Your task to perform on an android device: delete browsing data in the chrome app Image 0: 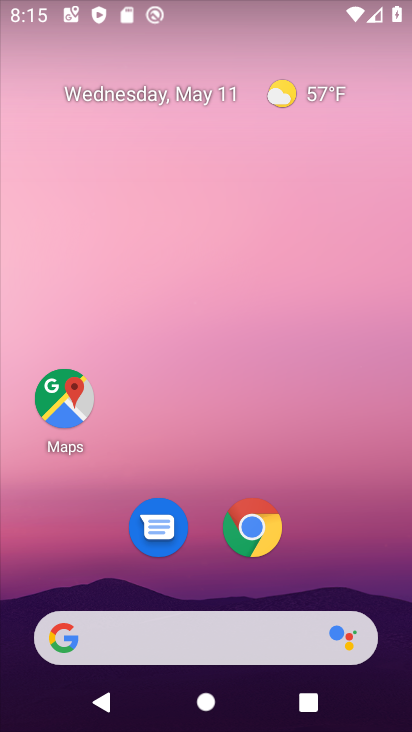
Step 0: click (250, 521)
Your task to perform on an android device: delete browsing data in the chrome app Image 1: 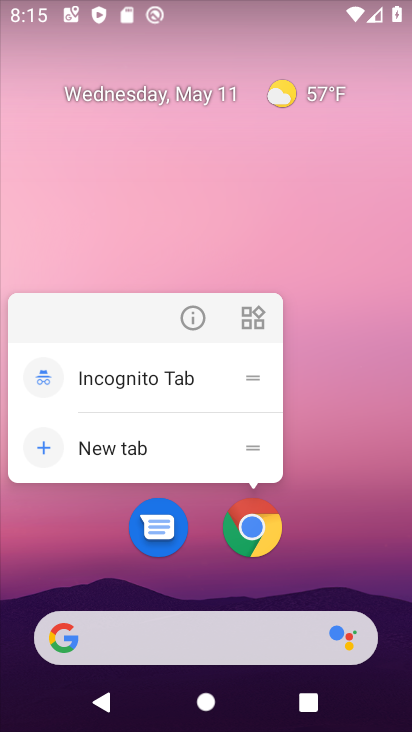
Step 1: click (248, 544)
Your task to perform on an android device: delete browsing data in the chrome app Image 2: 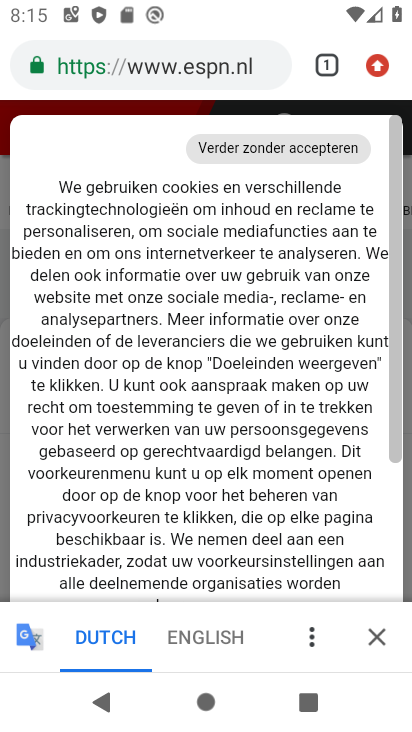
Step 2: drag from (284, 86) to (295, 231)
Your task to perform on an android device: delete browsing data in the chrome app Image 3: 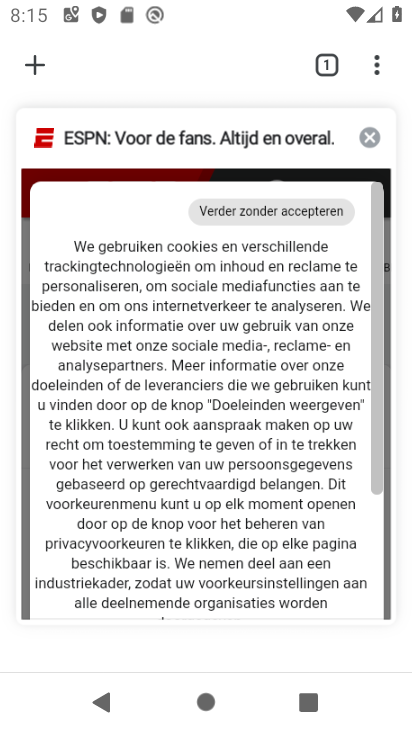
Step 3: click (375, 67)
Your task to perform on an android device: delete browsing data in the chrome app Image 4: 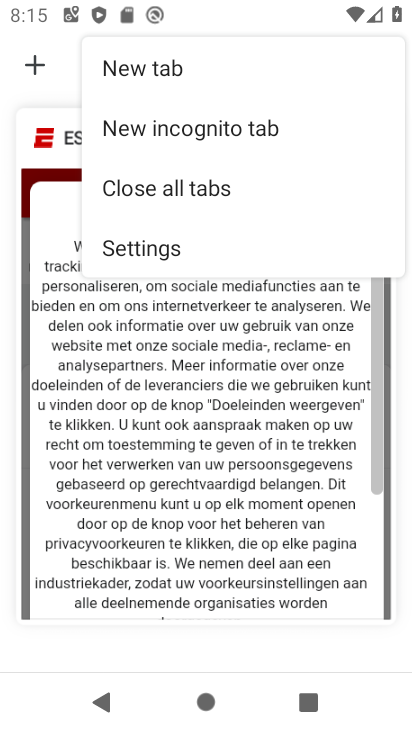
Step 4: click (149, 253)
Your task to perform on an android device: delete browsing data in the chrome app Image 5: 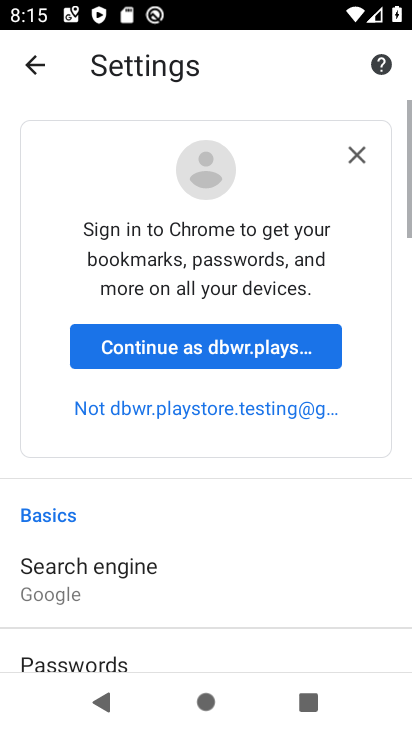
Step 5: drag from (169, 545) to (166, 66)
Your task to perform on an android device: delete browsing data in the chrome app Image 6: 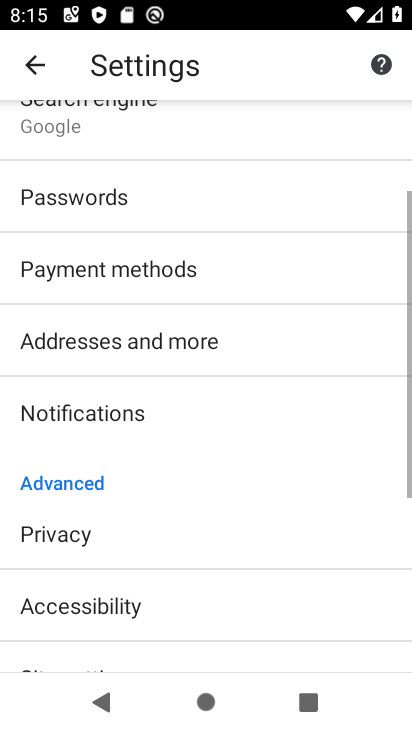
Step 6: drag from (153, 514) to (143, 90)
Your task to perform on an android device: delete browsing data in the chrome app Image 7: 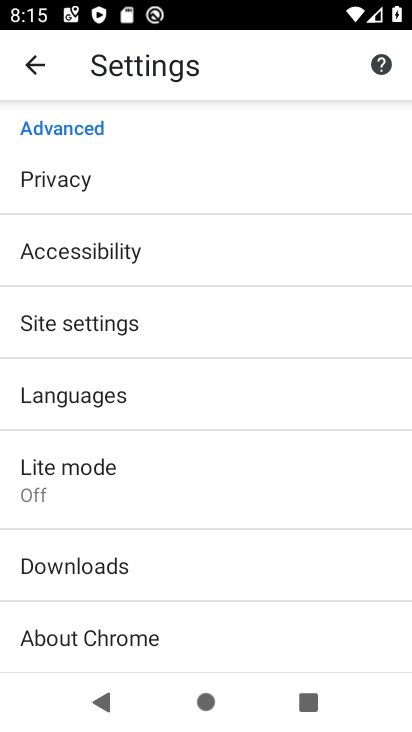
Step 7: click (66, 189)
Your task to perform on an android device: delete browsing data in the chrome app Image 8: 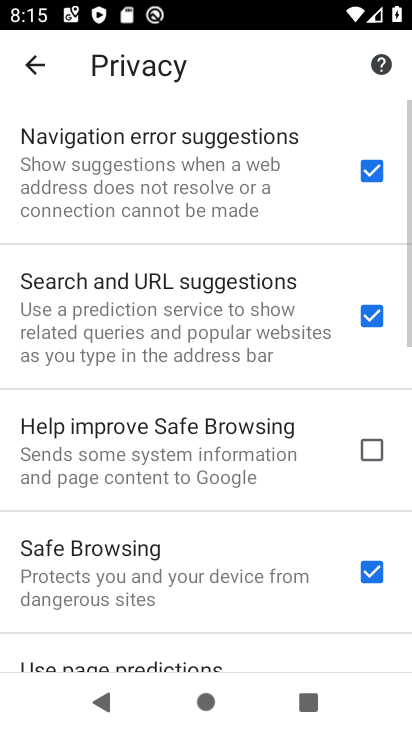
Step 8: drag from (187, 494) to (182, 98)
Your task to perform on an android device: delete browsing data in the chrome app Image 9: 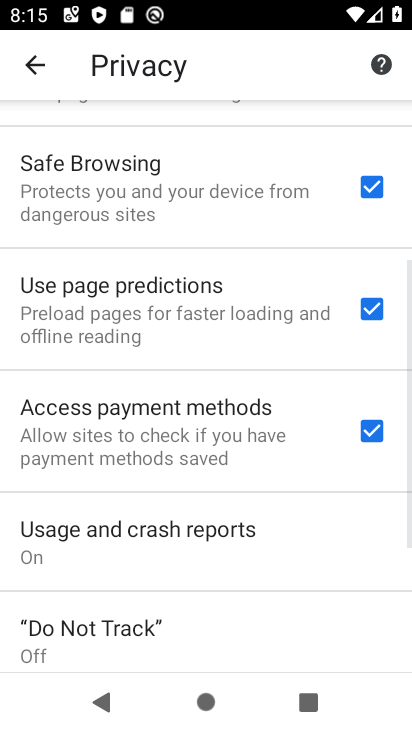
Step 9: drag from (113, 562) to (113, 98)
Your task to perform on an android device: delete browsing data in the chrome app Image 10: 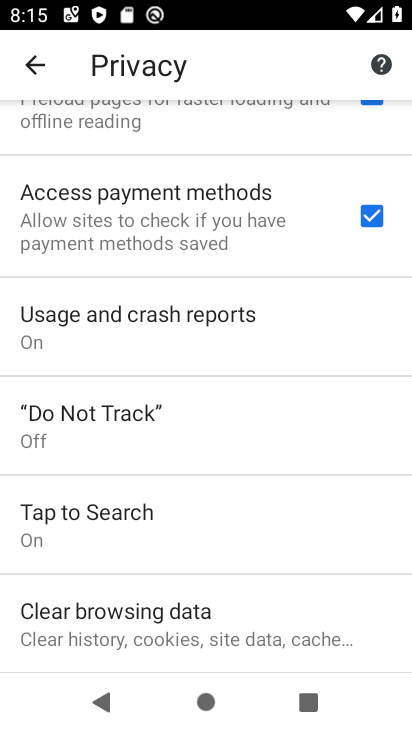
Step 10: click (115, 627)
Your task to perform on an android device: delete browsing data in the chrome app Image 11: 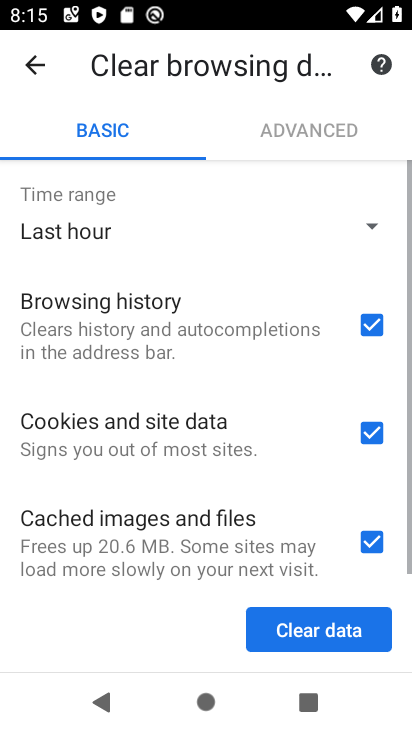
Step 11: click (371, 426)
Your task to perform on an android device: delete browsing data in the chrome app Image 12: 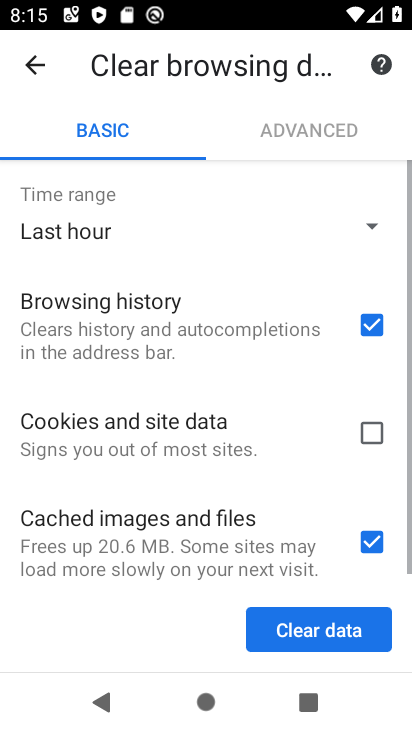
Step 12: click (366, 529)
Your task to perform on an android device: delete browsing data in the chrome app Image 13: 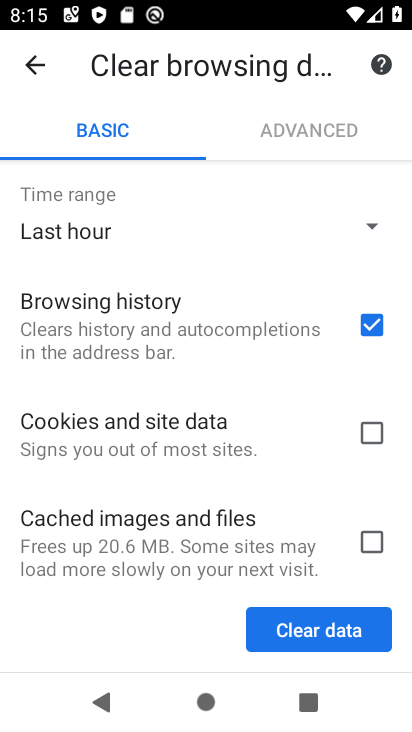
Step 13: click (324, 630)
Your task to perform on an android device: delete browsing data in the chrome app Image 14: 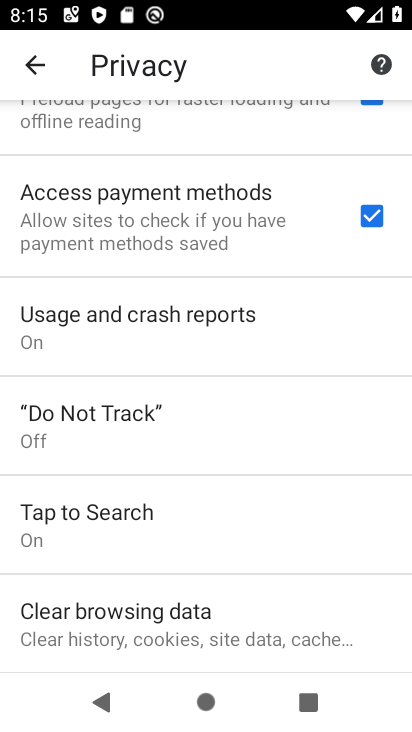
Step 14: task complete